Your task to perform on an android device: open chrome and create a bookmark for the current page Image 0: 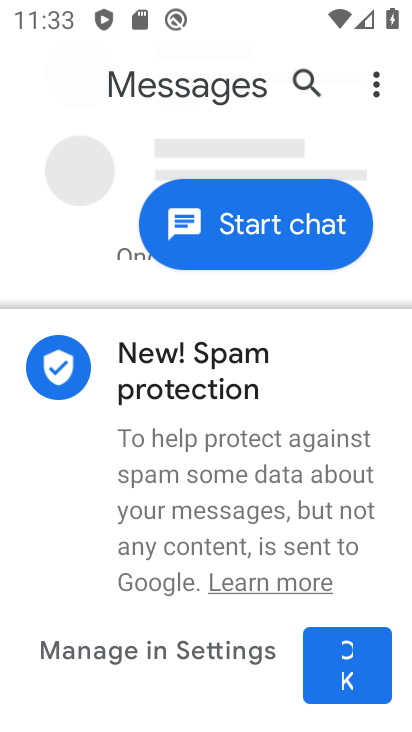
Step 0: press home button
Your task to perform on an android device: open chrome and create a bookmark for the current page Image 1: 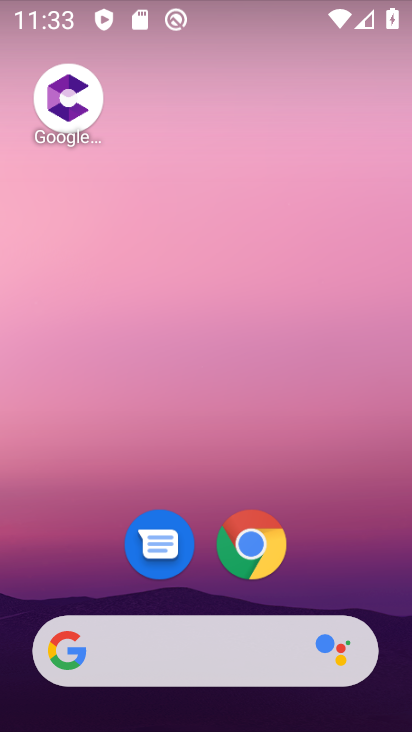
Step 1: click (242, 536)
Your task to perform on an android device: open chrome and create a bookmark for the current page Image 2: 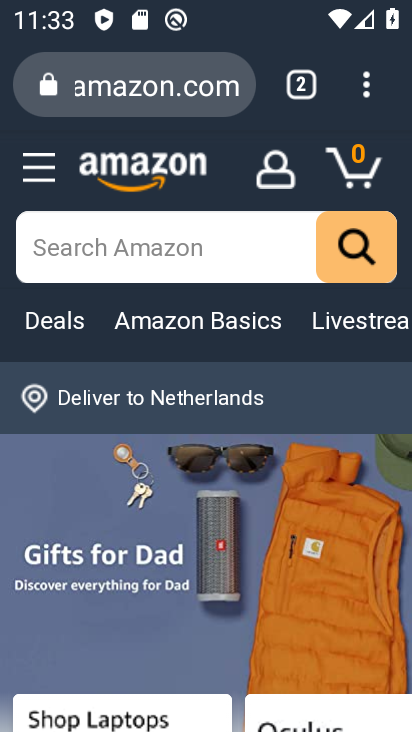
Step 2: click (307, 83)
Your task to perform on an android device: open chrome and create a bookmark for the current page Image 3: 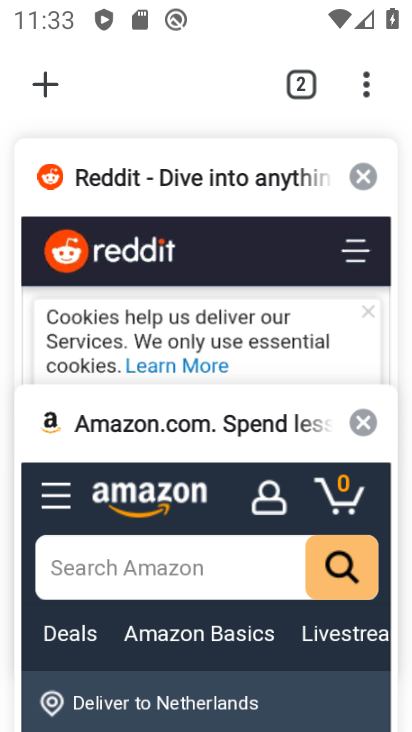
Step 3: click (36, 95)
Your task to perform on an android device: open chrome and create a bookmark for the current page Image 4: 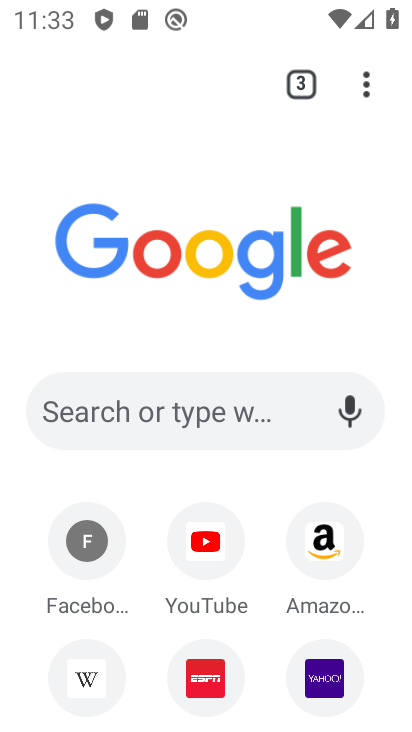
Step 4: click (367, 90)
Your task to perform on an android device: open chrome and create a bookmark for the current page Image 5: 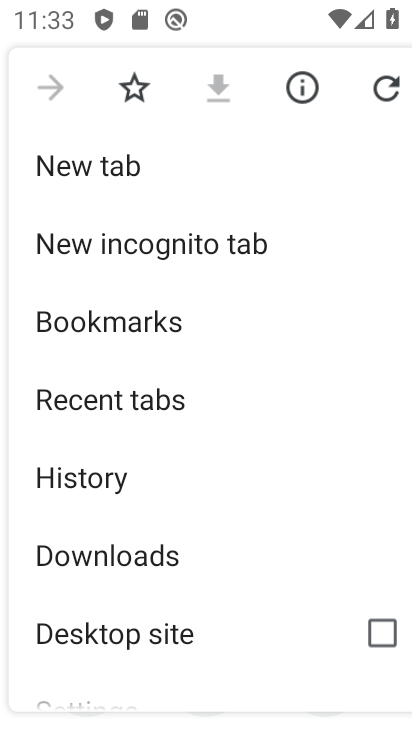
Step 5: click (136, 80)
Your task to perform on an android device: open chrome and create a bookmark for the current page Image 6: 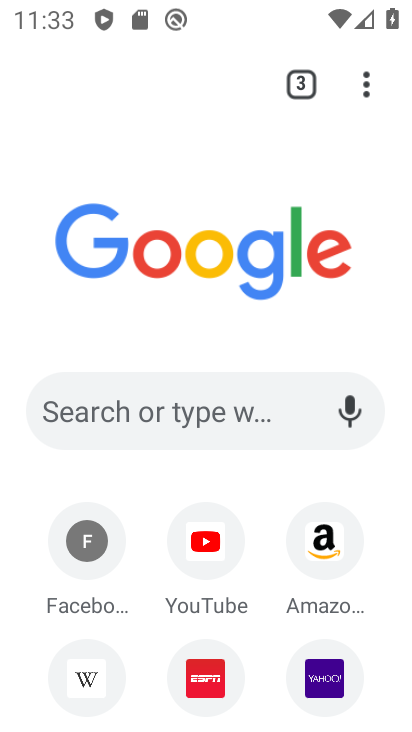
Step 6: task complete